Your task to perform on an android device: set the stopwatch Image 0: 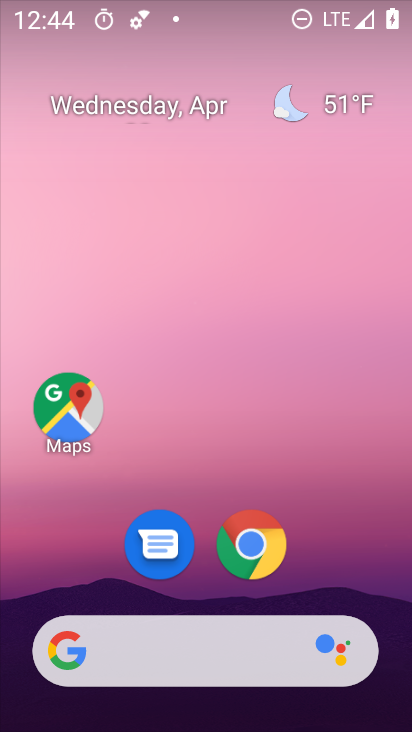
Step 0: drag from (352, 566) to (346, 156)
Your task to perform on an android device: set the stopwatch Image 1: 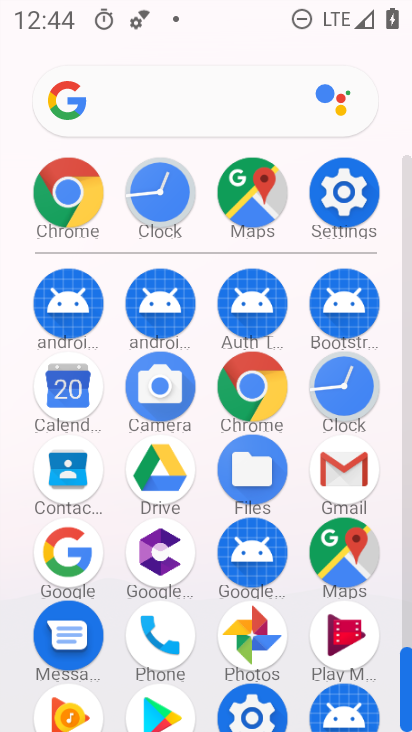
Step 1: click (355, 384)
Your task to perform on an android device: set the stopwatch Image 2: 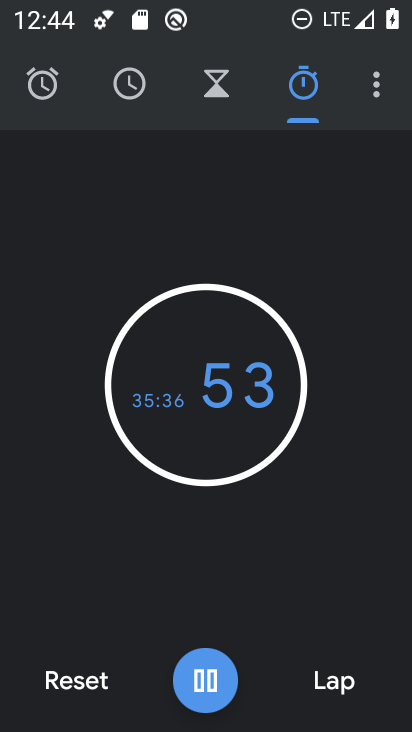
Step 2: task complete